Your task to perform on an android device: Do I have any events today? Image 0: 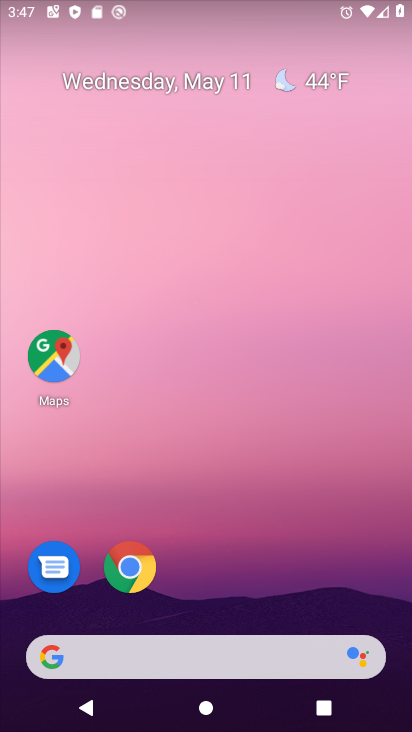
Step 0: drag from (245, 516) to (216, 14)
Your task to perform on an android device: Do I have any events today? Image 1: 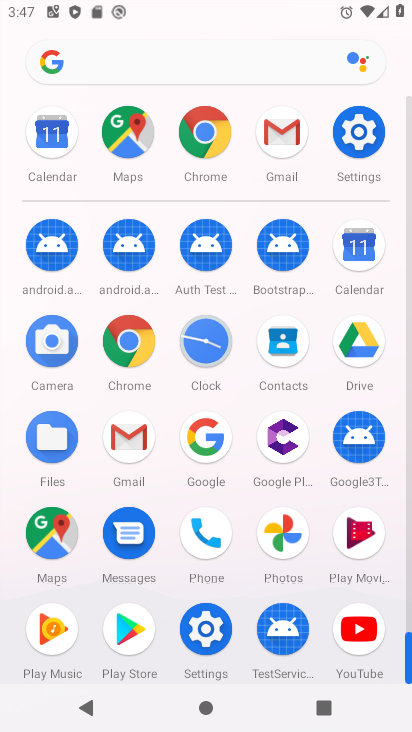
Step 1: drag from (7, 466) to (7, 130)
Your task to perform on an android device: Do I have any events today? Image 2: 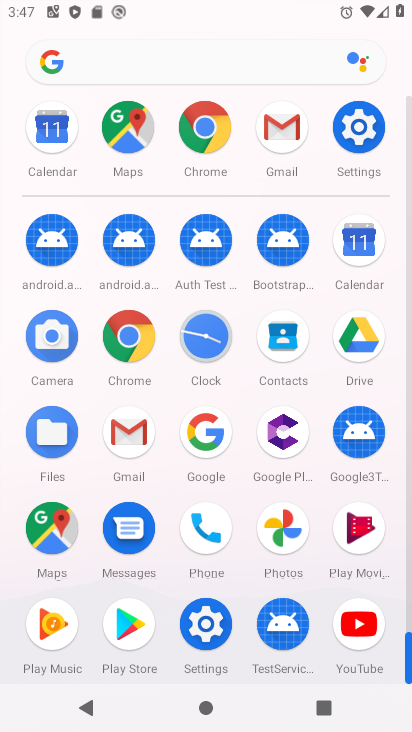
Step 2: drag from (3, 457) to (13, 155)
Your task to perform on an android device: Do I have any events today? Image 3: 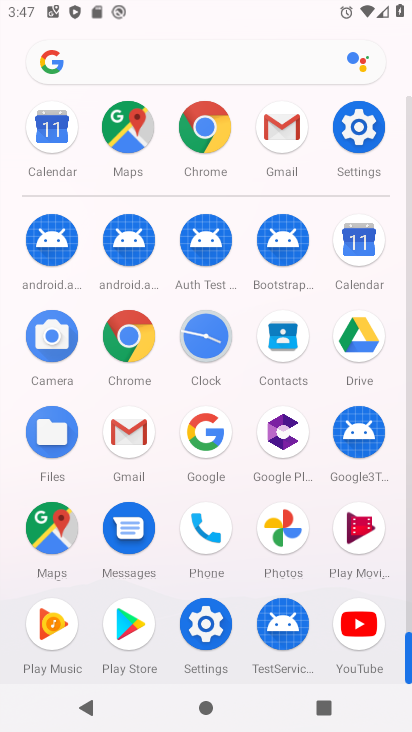
Step 3: click (360, 238)
Your task to perform on an android device: Do I have any events today? Image 4: 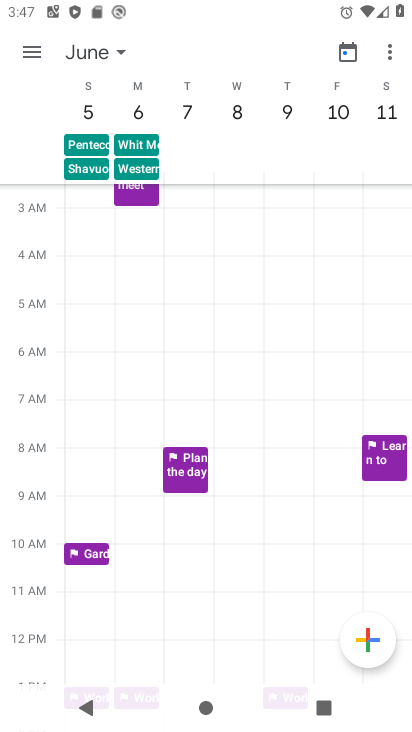
Step 4: click (37, 54)
Your task to perform on an android device: Do I have any events today? Image 5: 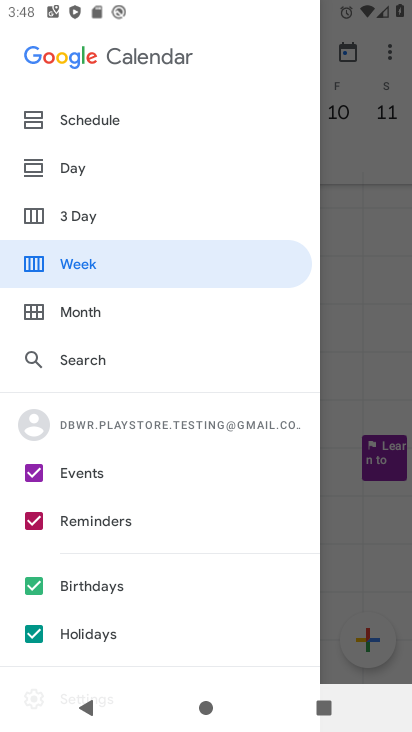
Step 5: click (156, 266)
Your task to perform on an android device: Do I have any events today? Image 6: 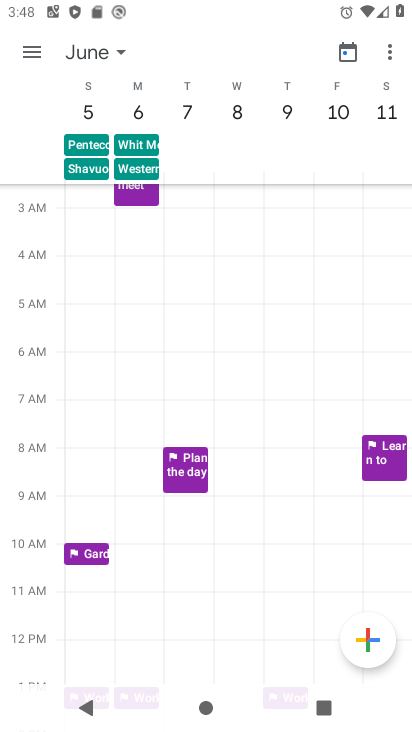
Step 6: click (39, 56)
Your task to perform on an android device: Do I have any events today? Image 7: 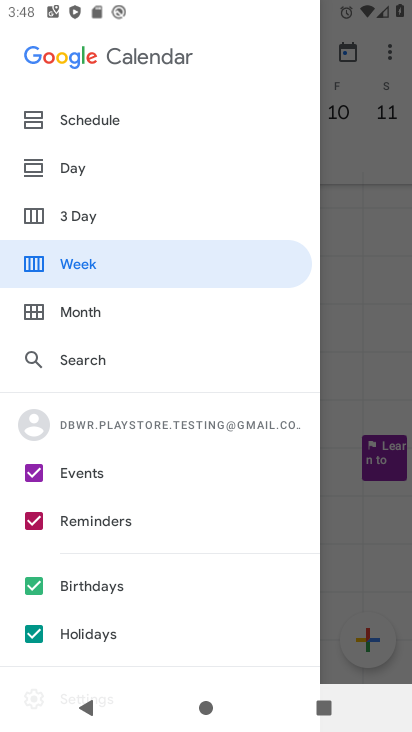
Step 7: click (182, 260)
Your task to perform on an android device: Do I have any events today? Image 8: 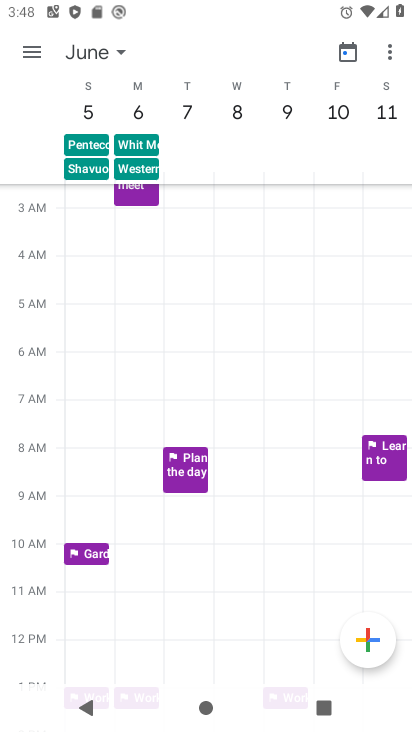
Step 8: click (347, 52)
Your task to perform on an android device: Do I have any events today? Image 9: 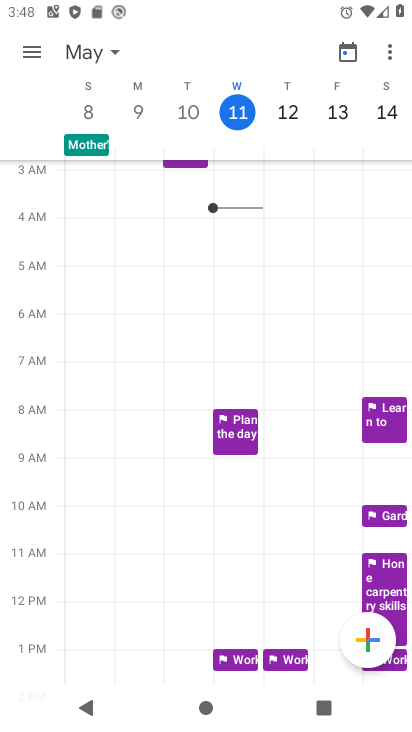
Step 9: task complete